Your task to perform on an android device: Open Google Maps Image 0: 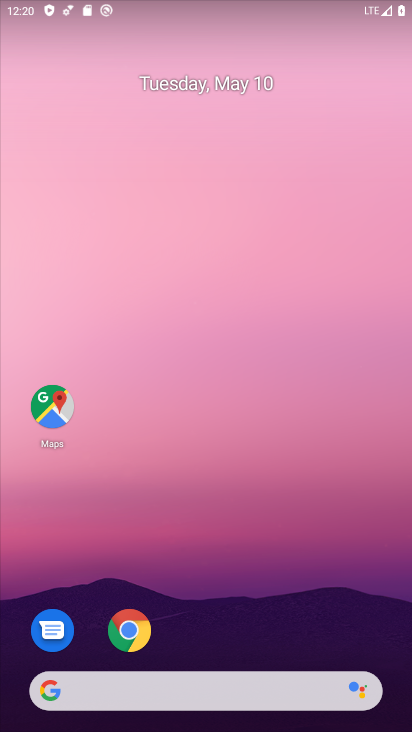
Step 0: drag from (213, 727) to (193, 335)
Your task to perform on an android device: Open Google Maps Image 1: 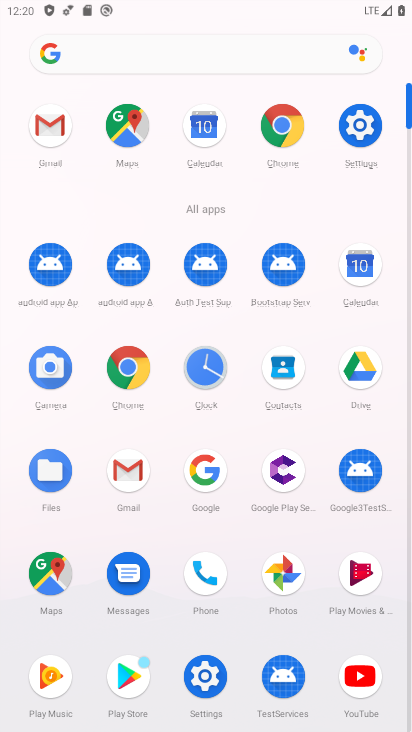
Step 1: click (44, 574)
Your task to perform on an android device: Open Google Maps Image 2: 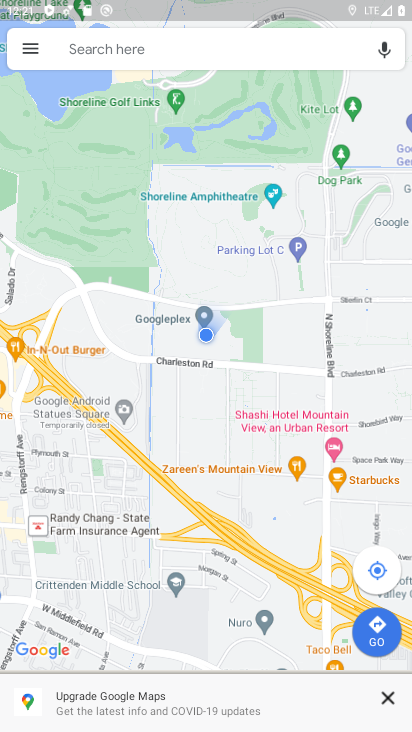
Step 2: task complete